Your task to perform on an android device: Open sound settings Image 0: 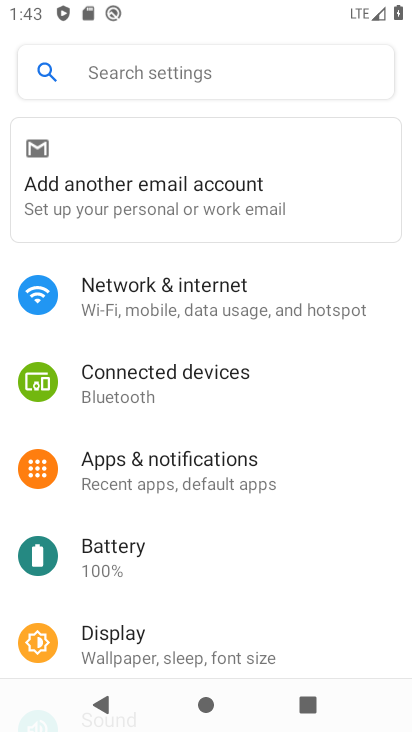
Step 0: drag from (131, 542) to (127, 37)
Your task to perform on an android device: Open sound settings Image 1: 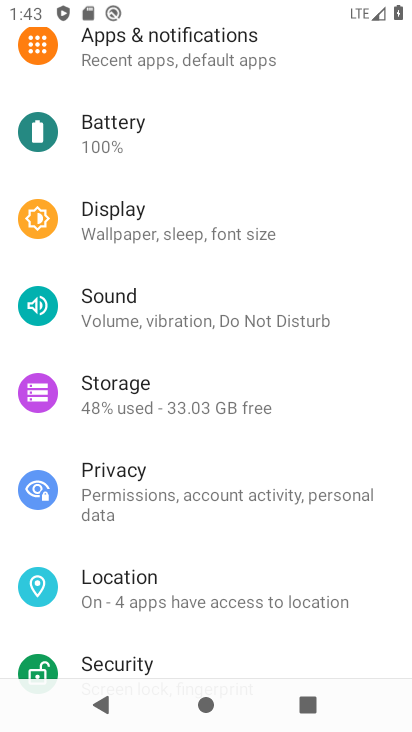
Step 1: click (111, 313)
Your task to perform on an android device: Open sound settings Image 2: 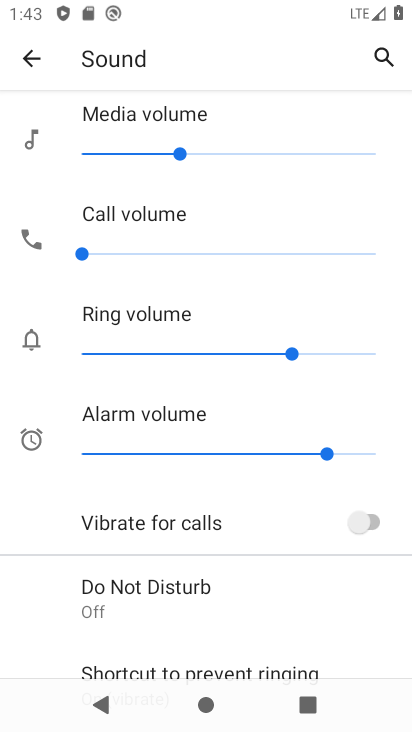
Step 2: task complete